Your task to perform on an android device: Search for seafood restaurants on Google Maps Image 0: 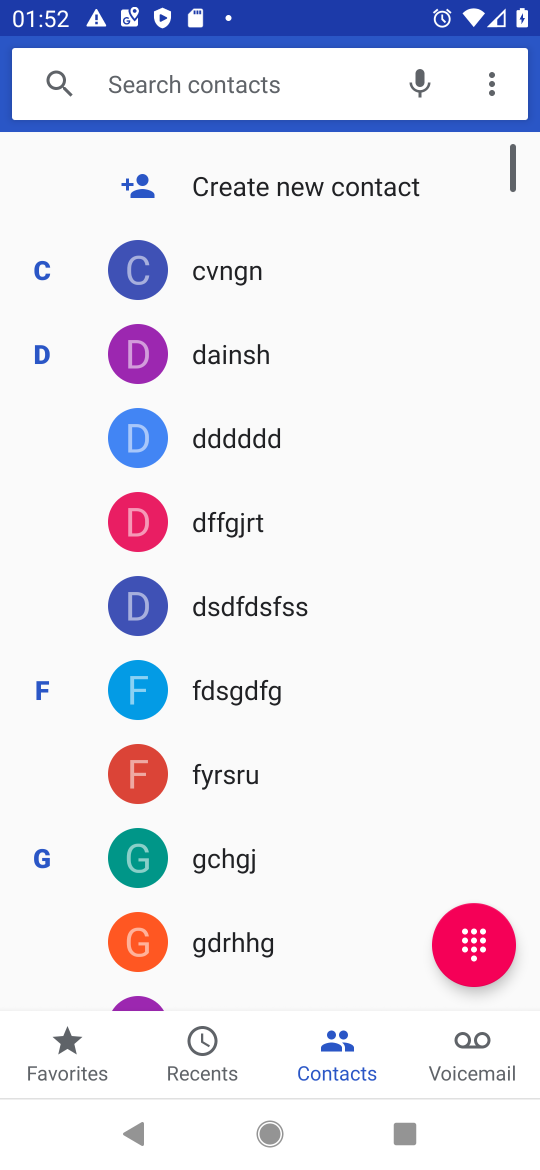
Step 0: press home button
Your task to perform on an android device: Search for seafood restaurants on Google Maps Image 1: 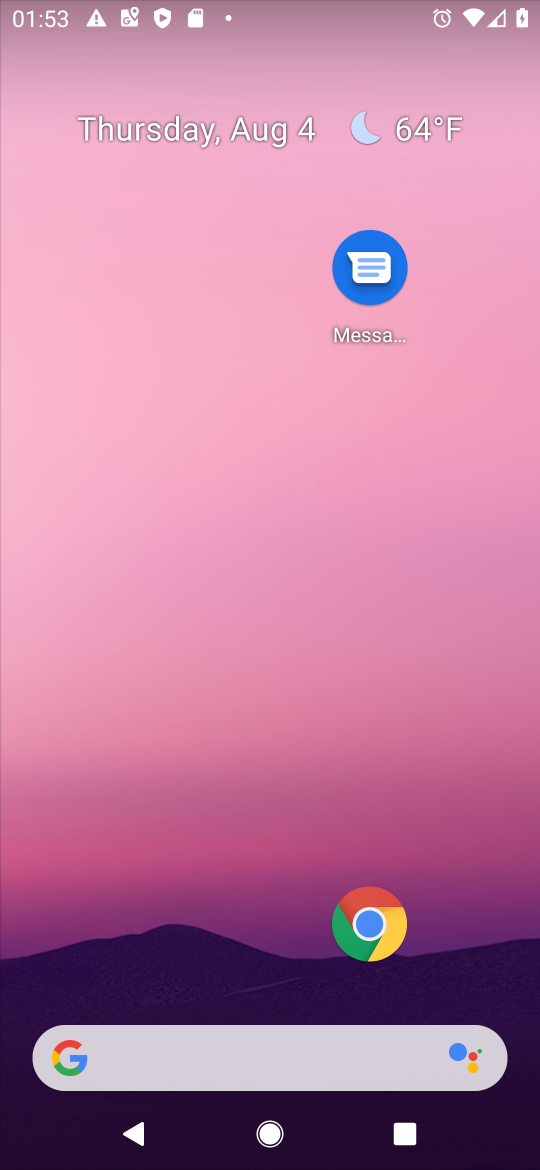
Step 1: click (474, 889)
Your task to perform on an android device: Search for seafood restaurants on Google Maps Image 2: 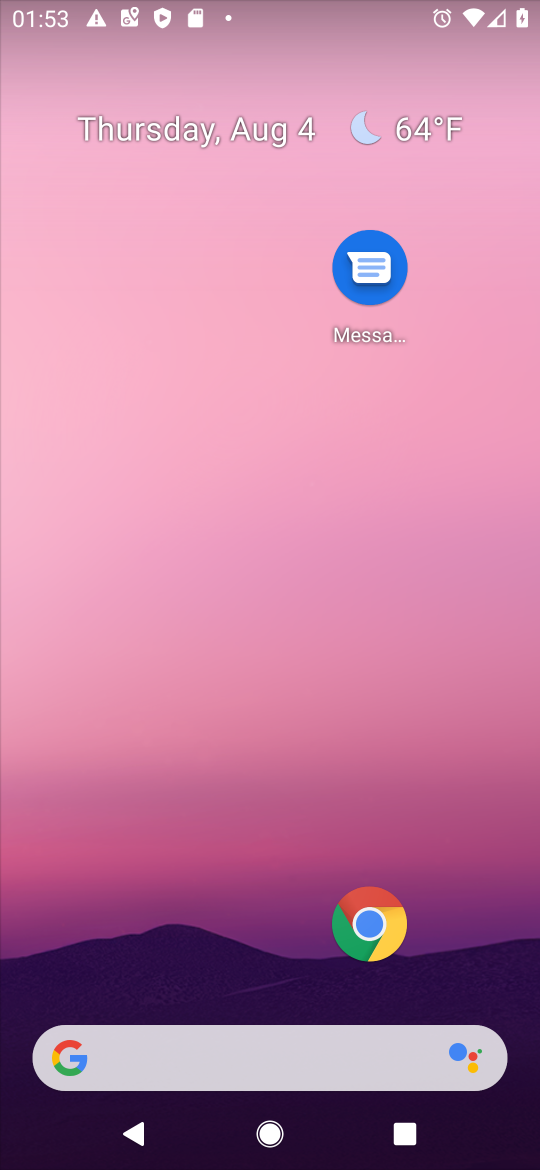
Step 2: drag from (77, 1093) to (283, 224)
Your task to perform on an android device: Search for seafood restaurants on Google Maps Image 3: 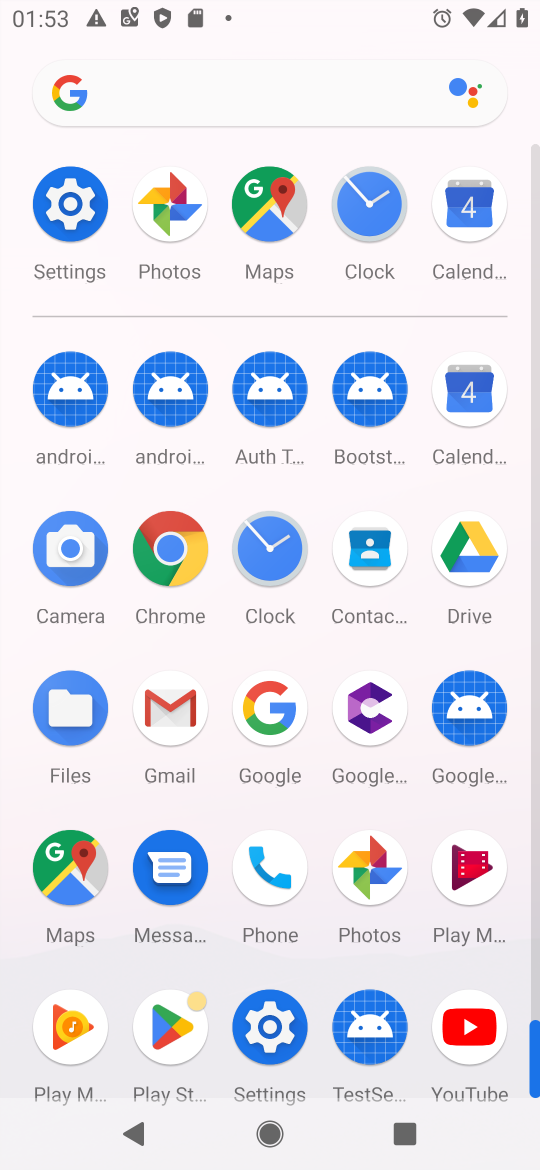
Step 3: click (65, 899)
Your task to perform on an android device: Search for seafood restaurants on Google Maps Image 4: 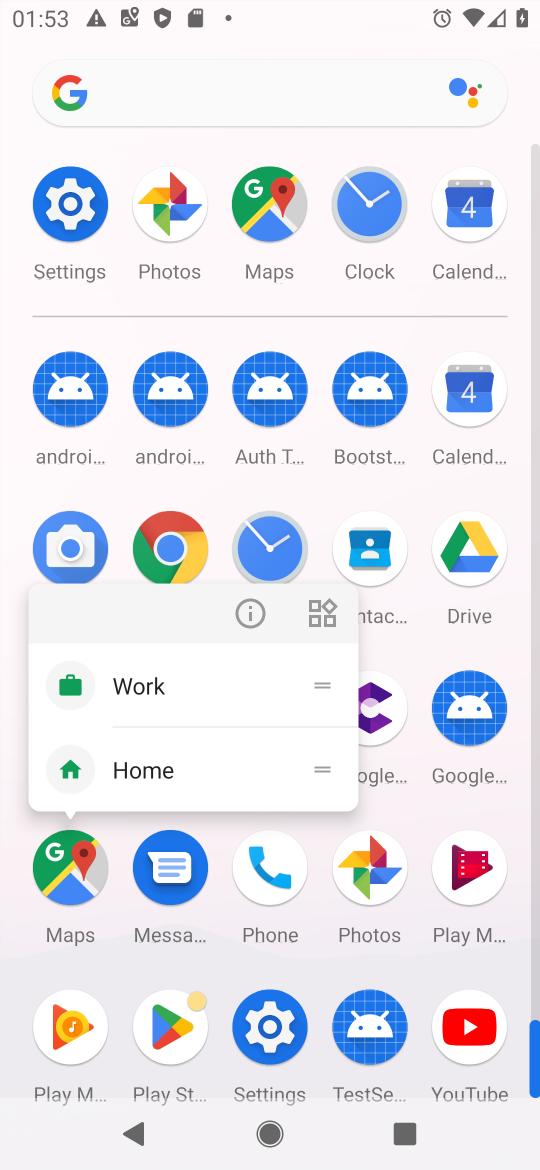
Step 4: click (87, 909)
Your task to perform on an android device: Search for seafood restaurants on Google Maps Image 5: 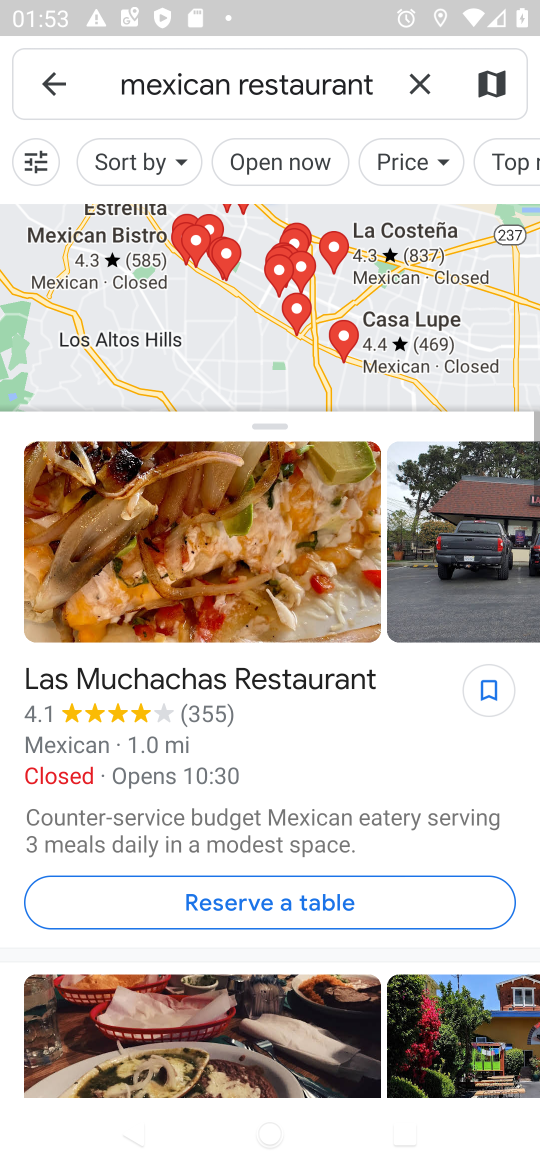
Step 5: click (42, 91)
Your task to perform on an android device: Search for seafood restaurants on Google Maps Image 6: 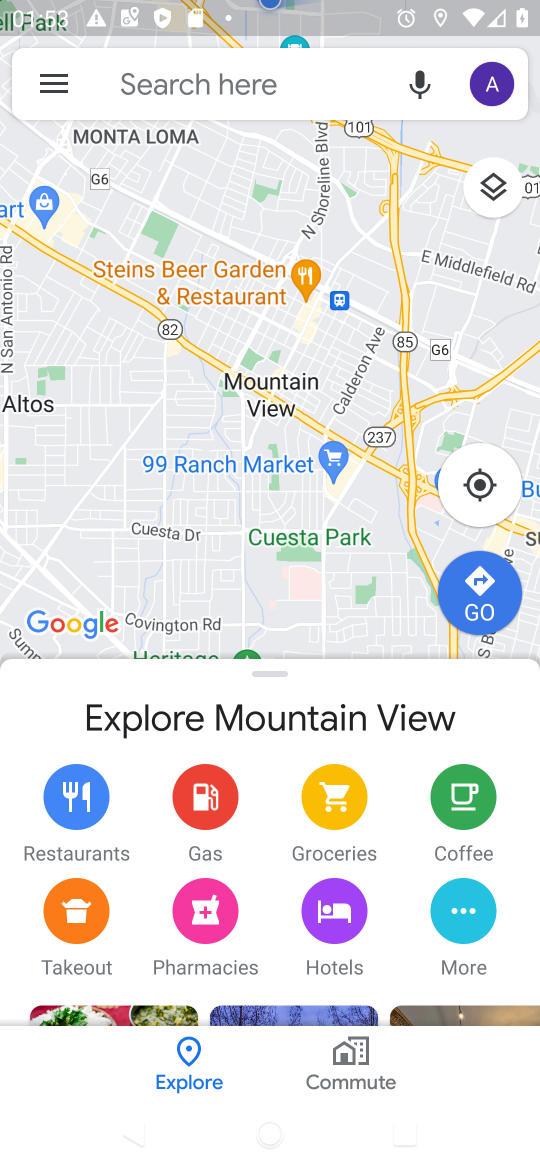
Step 6: click (136, 86)
Your task to perform on an android device: Search for seafood restaurants on Google Maps Image 7: 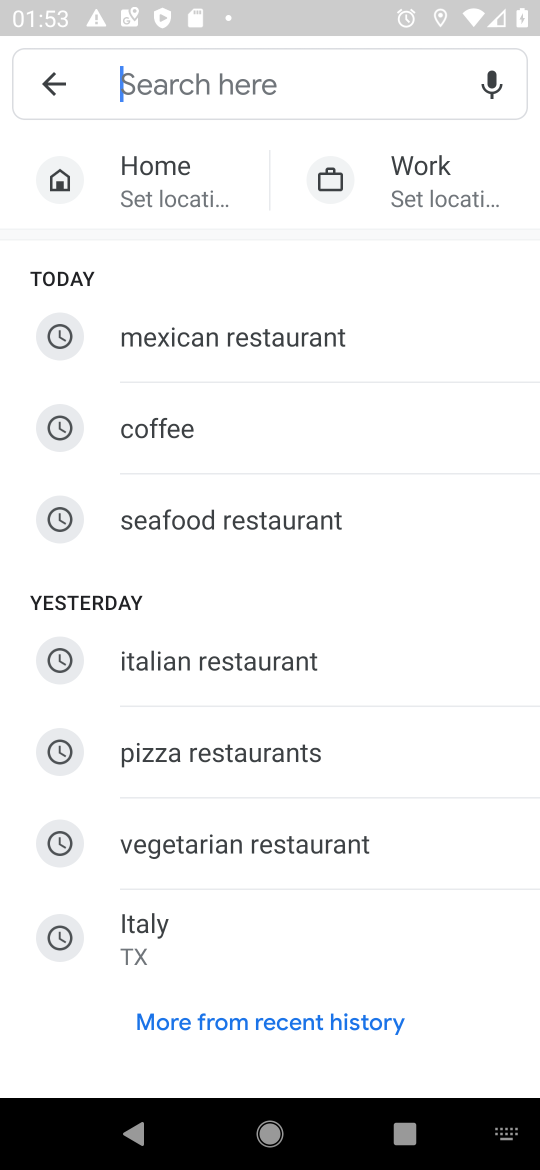
Step 7: click (197, 525)
Your task to perform on an android device: Search for seafood restaurants on Google Maps Image 8: 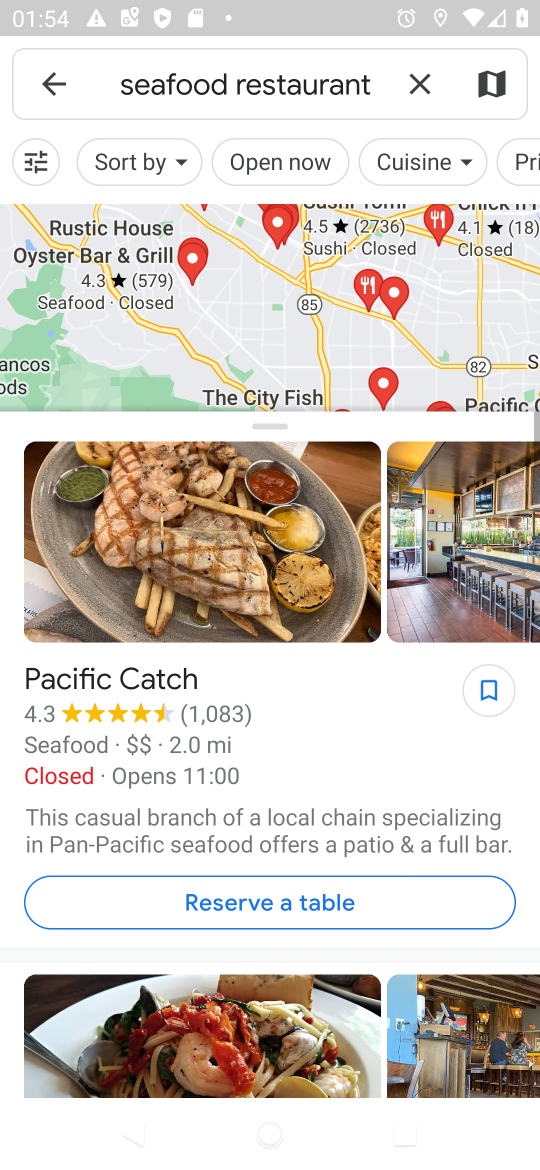
Step 8: task complete